Your task to perform on an android device: check android version Image 0: 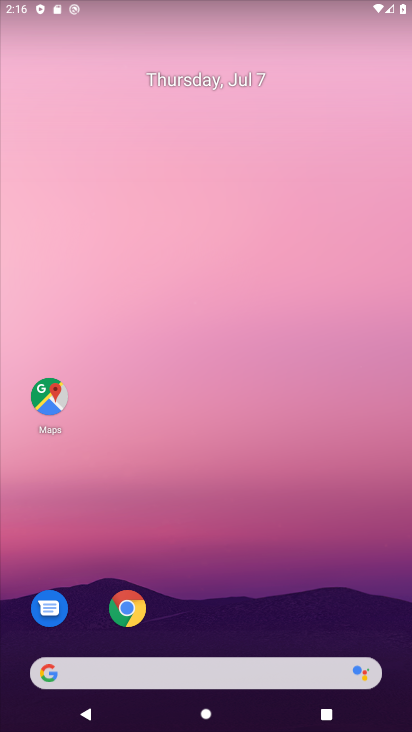
Step 0: drag from (250, 630) to (251, 133)
Your task to perform on an android device: check android version Image 1: 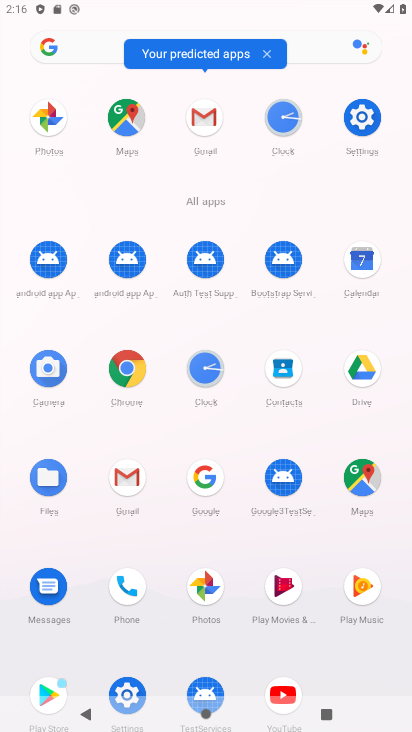
Step 1: click (361, 114)
Your task to perform on an android device: check android version Image 2: 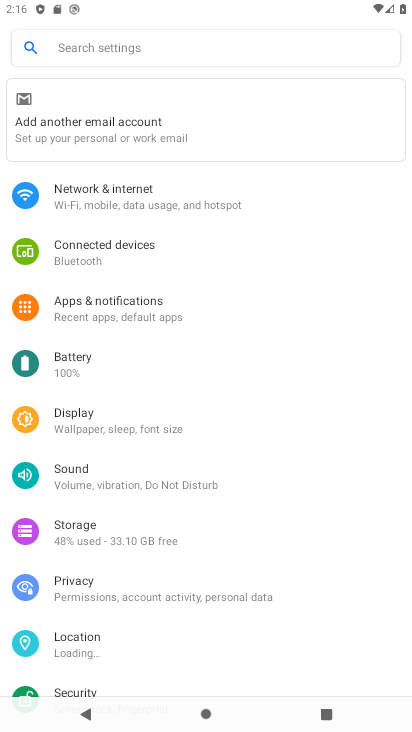
Step 2: drag from (158, 660) to (145, 191)
Your task to perform on an android device: check android version Image 3: 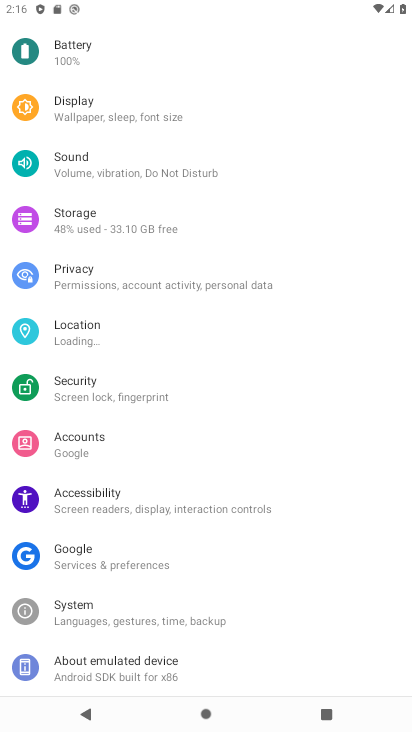
Step 3: click (124, 670)
Your task to perform on an android device: check android version Image 4: 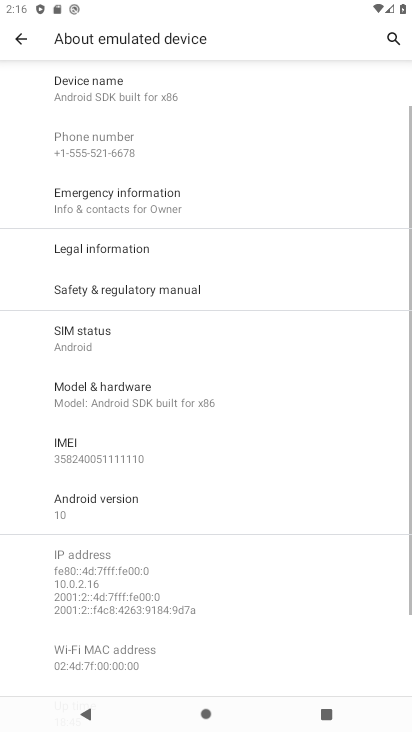
Step 4: click (102, 506)
Your task to perform on an android device: check android version Image 5: 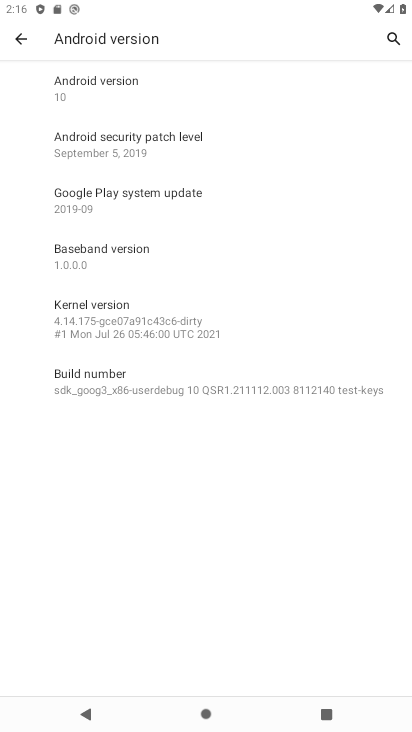
Step 5: task complete